Your task to perform on an android device: change text size in settings app Image 0: 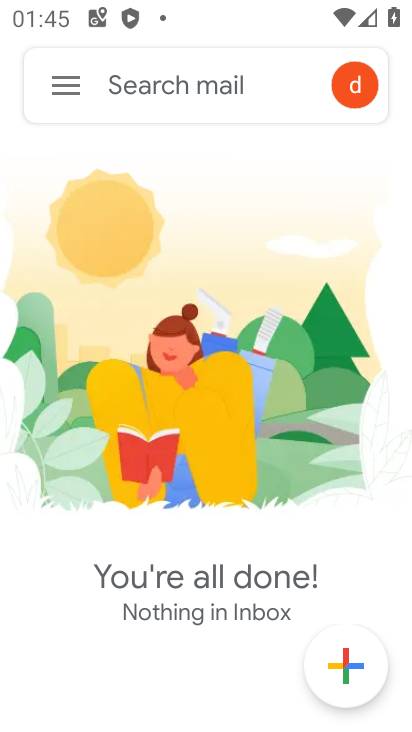
Step 0: press home button
Your task to perform on an android device: change text size in settings app Image 1: 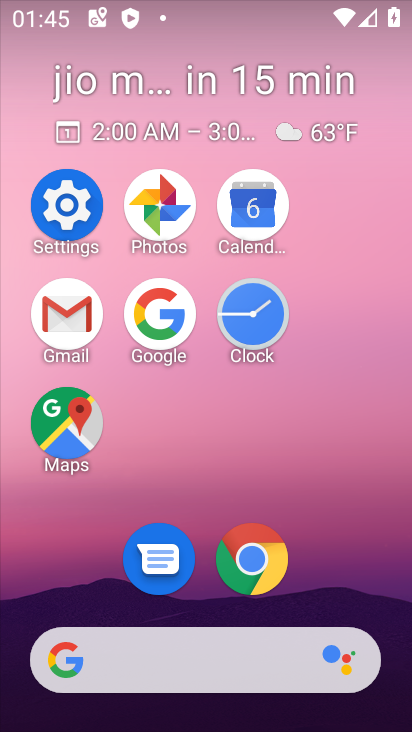
Step 1: click (76, 230)
Your task to perform on an android device: change text size in settings app Image 2: 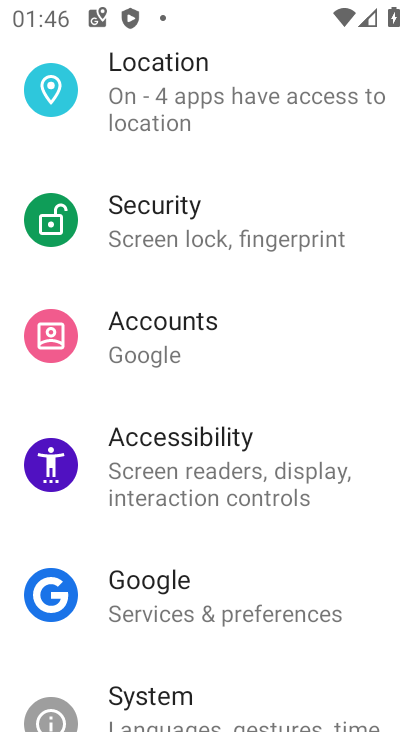
Step 2: drag from (256, 192) to (215, 714)
Your task to perform on an android device: change text size in settings app Image 3: 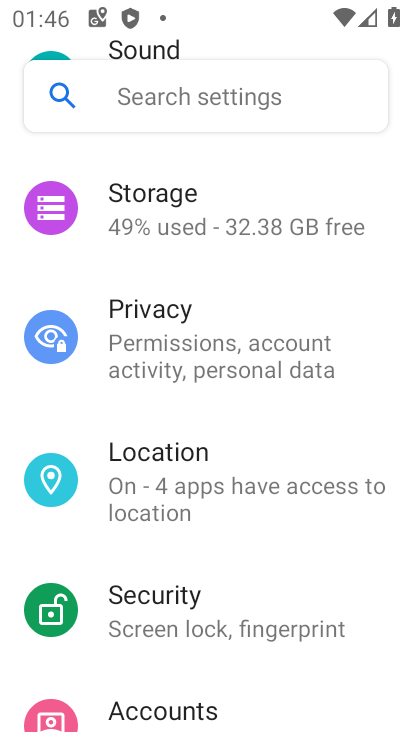
Step 3: drag from (291, 258) to (245, 694)
Your task to perform on an android device: change text size in settings app Image 4: 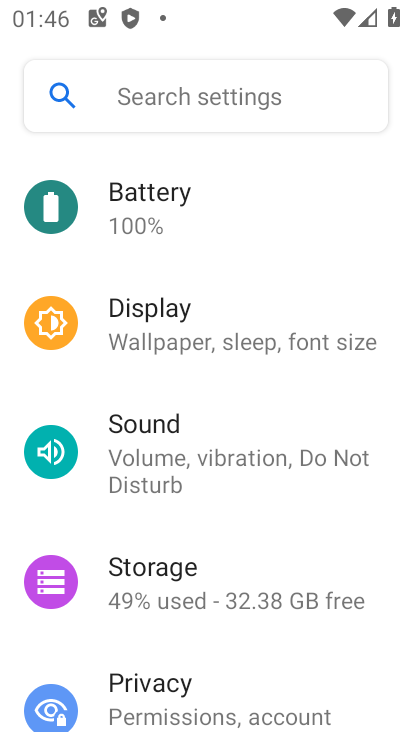
Step 4: click (253, 321)
Your task to perform on an android device: change text size in settings app Image 5: 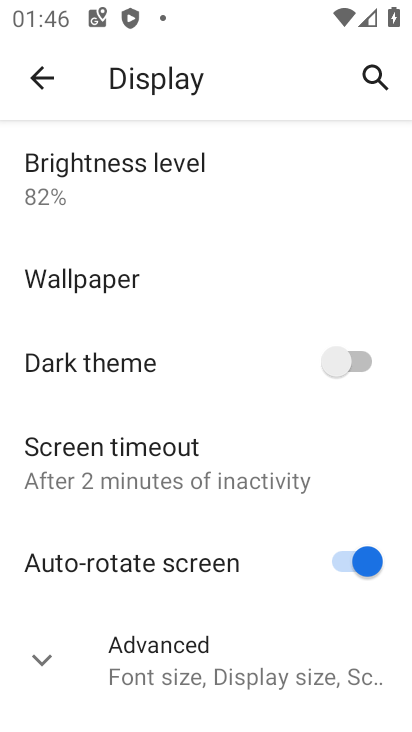
Step 5: click (142, 650)
Your task to perform on an android device: change text size in settings app Image 6: 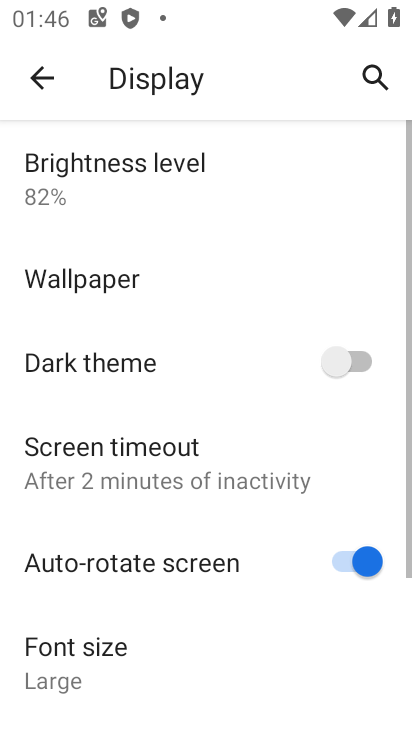
Step 6: click (142, 650)
Your task to perform on an android device: change text size in settings app Image 7: 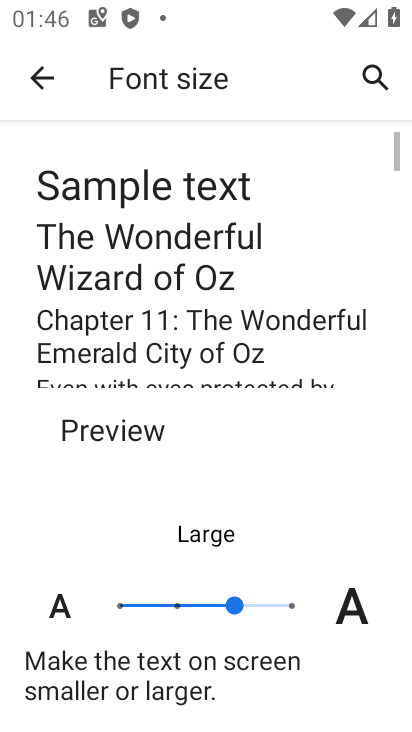
Step 7: click (181, 602)
Your task to perform on an android device: change text size in settings app Image 8: 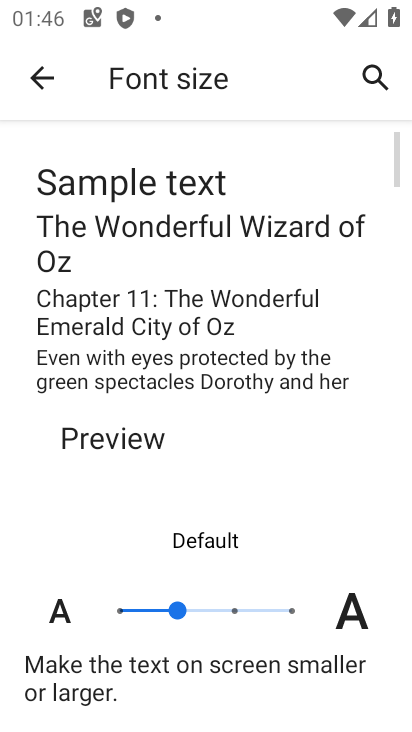
Step 8: task complete